Your task to perform on an android device: What's the weather today? Image 0: 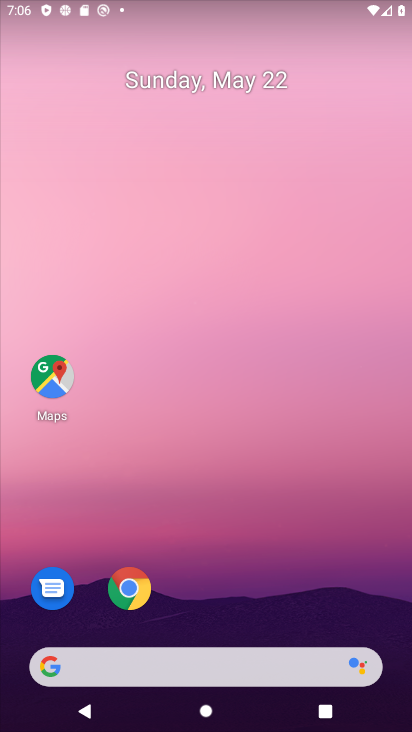
Step 0: click (190, 668)
Your task to perform on an android device: What's the weather today? Image 1: 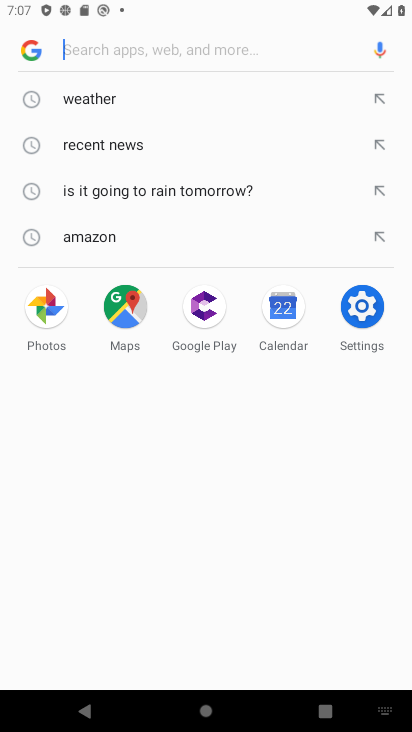
Step 1: click (95, 94)
Your task to perform on an android device: What's the weather today? Image 2: 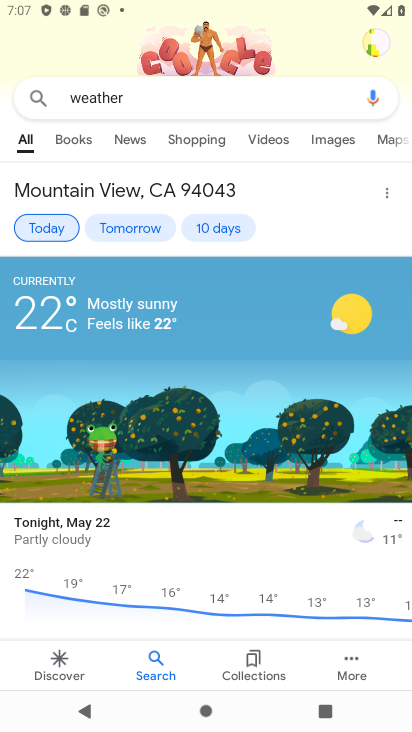
Step 2: task complete